Your task to perform on an android device: turn notification dots off Image 0: 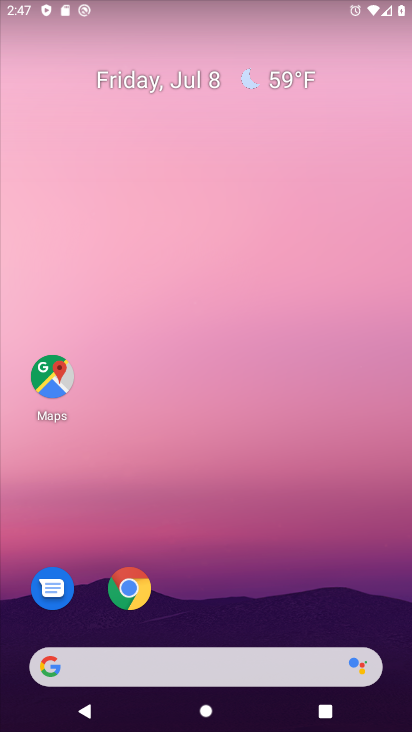
Step 0: drag from (191, 606) to (251, 14)
Your task to perform on an android device: turn notification dots off Image 1: 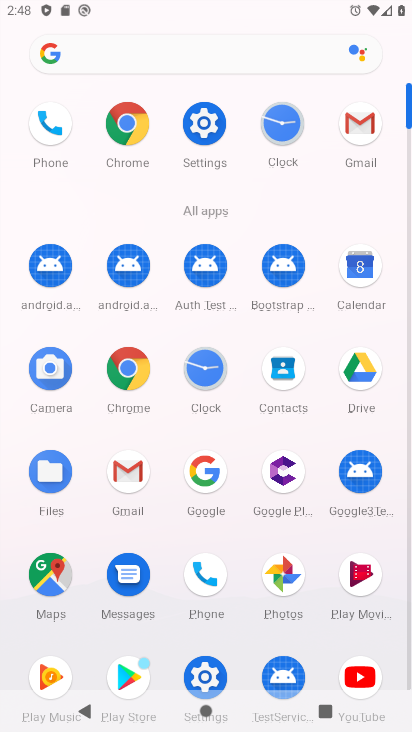
Step 1: click (210, 673)
Your task to perform on an android device: turn notification dots off Image 2: 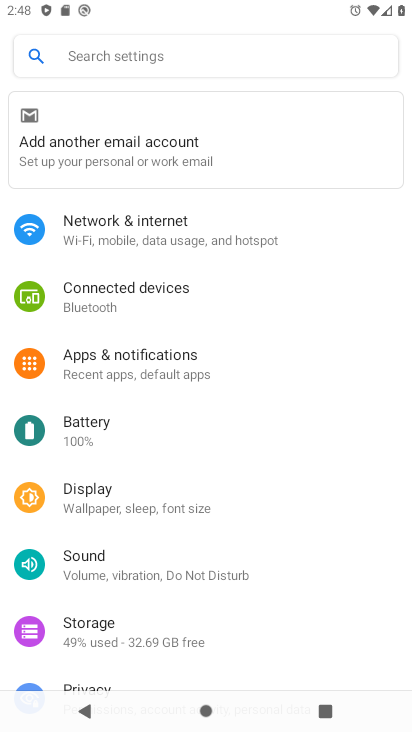
Step 2: click (163, 345)
Your task to perform on an android device: turn notification dots off Image 3: 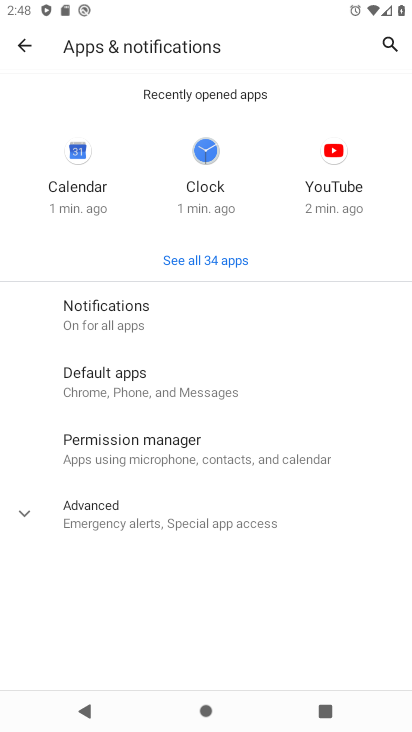
Step 3: click (139, 512)
Your task to perform on an android device: turn notification dots off Image 4: 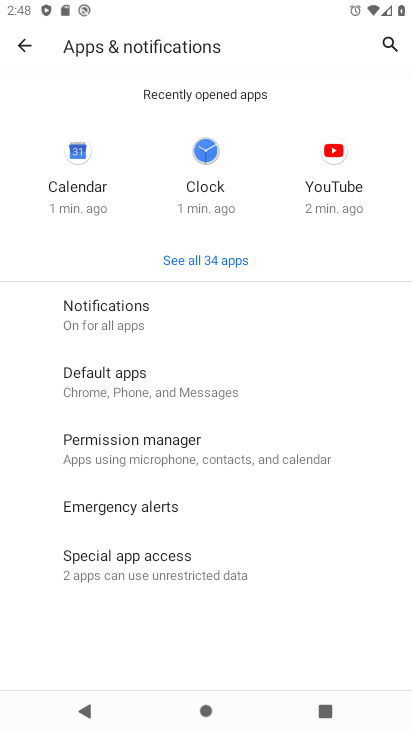
Step 4: click (126, 325)
Your task to perform on an android device: turn notification dots off Image 5: 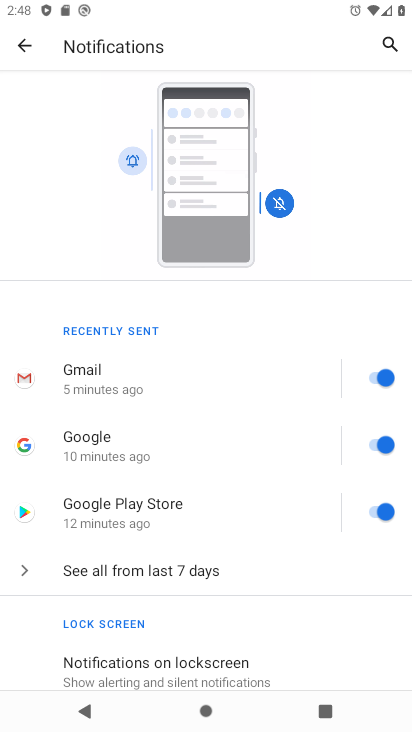
Step 5: drag from (227, 643) to (242, 377)
Your task to perform on an android device: turn notification dots off Image 6: 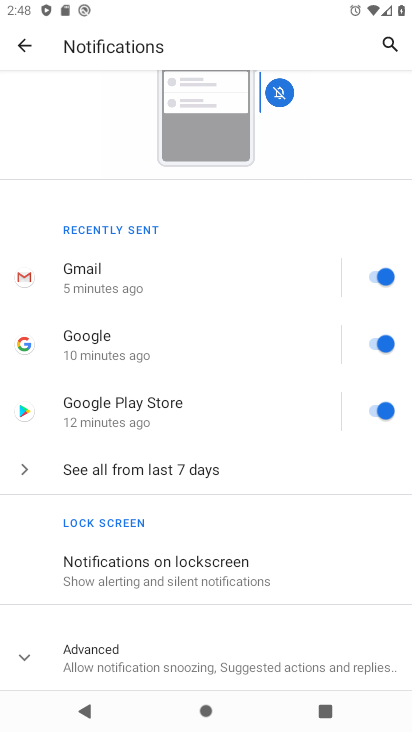
Step 6: click (139, 658)
Your task to perform on an android device: turn notification dots off Image 7: 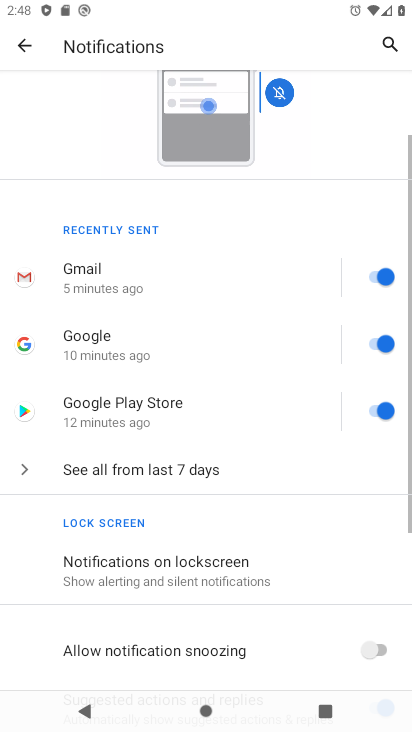
Step 7: drag from (138, 657) to (185, 389)
Your task to perform on an android device: turn notification dots off Image 8: 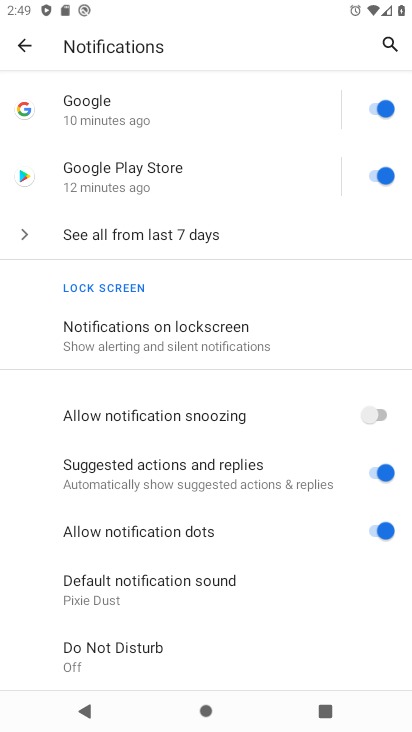
Step 8: click (367, 529)
Your task to perform on an android device: turn notification dots off Image 9: 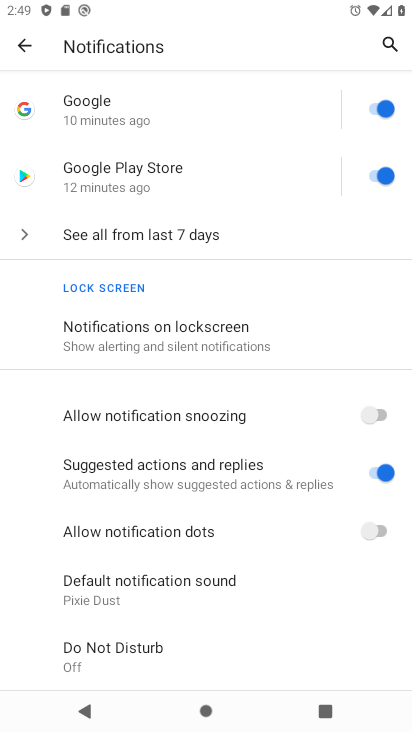
Step 9: task complete